Your task to perform on an android device: turn off picture-in-picture Image 0: 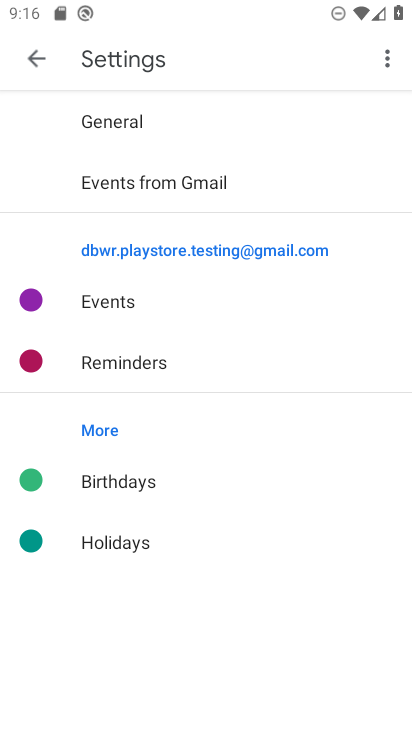
Step 0: press home button
Your task to perform on an android device: turn off picture-in-picture Image 1: 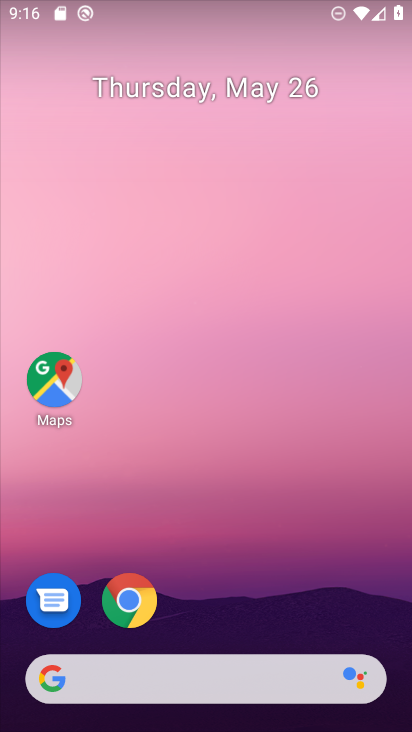
Step 1: click (141, 600)
Your task to perform on an android device: turn off picture-in-picture Image 2: 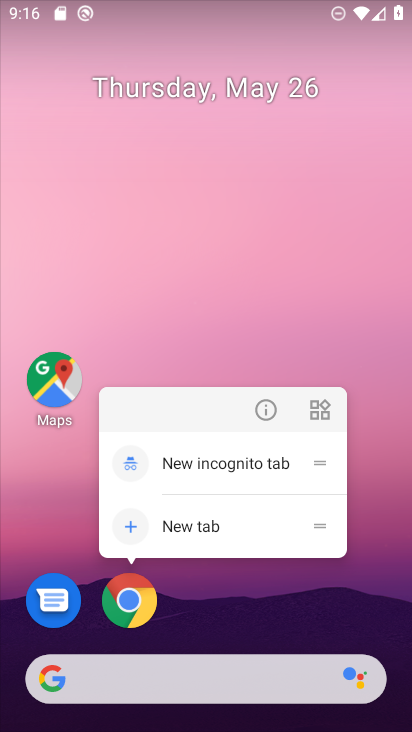
Step 2: click (261, 399)
Your task to perform on an android device: turn off picture-in-picture Image 3: 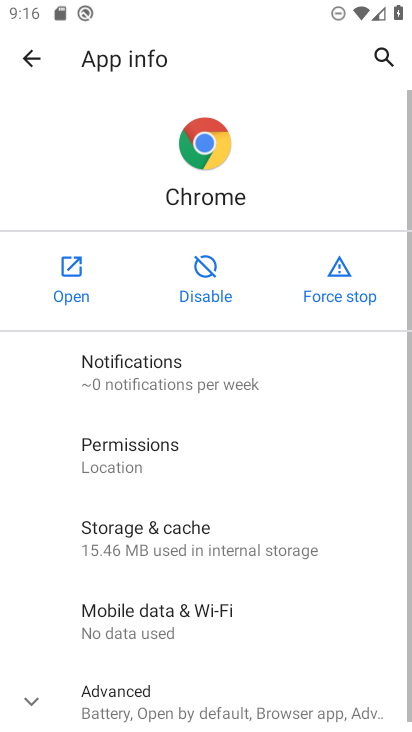
Step 3: drag from (222, 707) to (219, 335)
Your task to perform on an android device: turn off picture-in-picture Image 4: 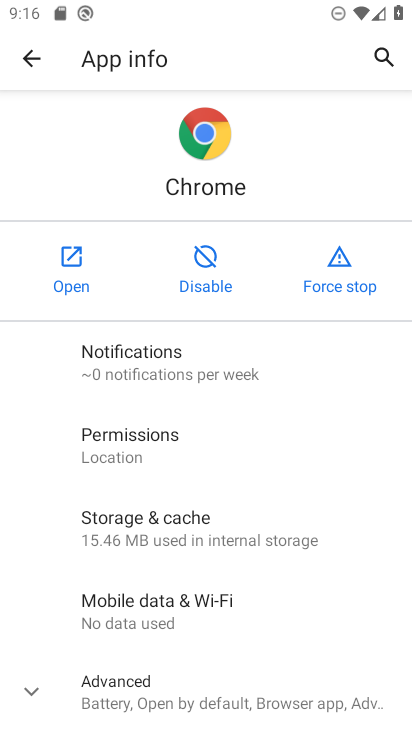
Step 4: click (154, 705)
Your task to perform on an android device: turn off picture-in-picture Image 5: 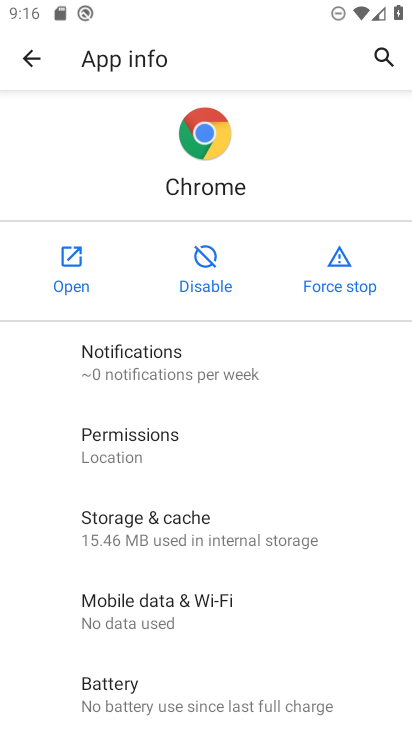
Step 5: drag from (213, 713) to (279, 298)
Your task to perform on an android device: turn off picture-in-picture Image 6: 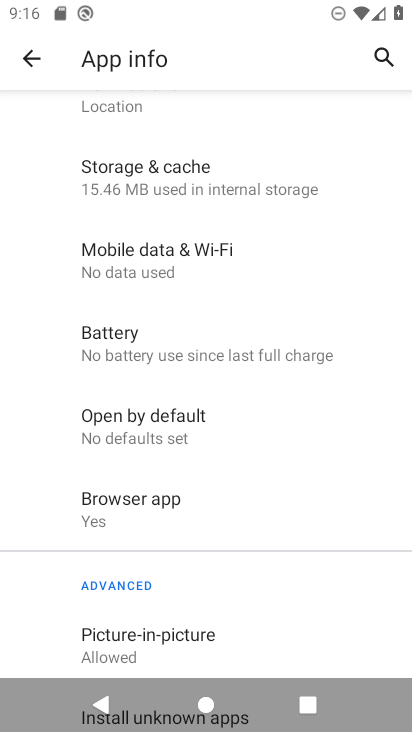
Step 6: click (185, 649)
Your task to perform on an android device: turn off picture-in-picture Image 7: 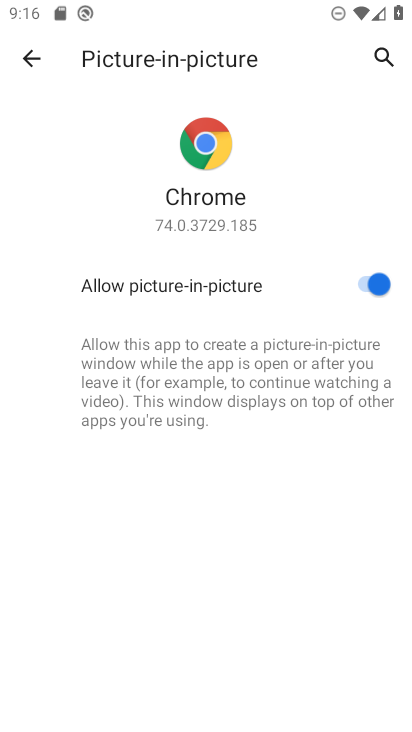
Step 7: click (361, 281)
Your task to perform on an android device: turn off picture-in-picture Image 8: 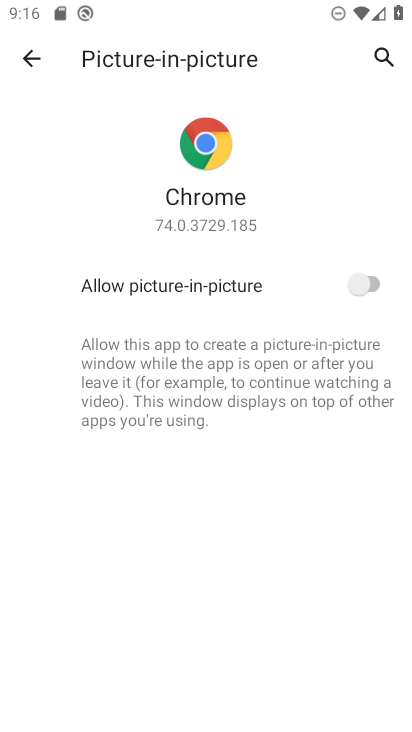
Step 8: task complete